Your task to perform on an android device: What is the recent news? Image 0: 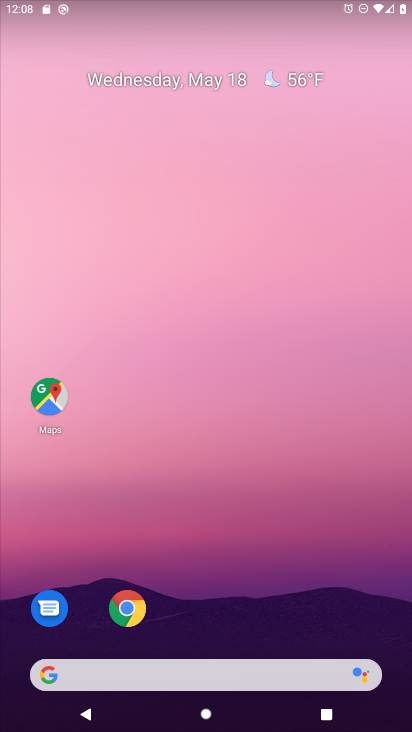
Step 0: drag from (292, 701) to (262, 197)
Your task to perform on an android device: What is the recent news? Image 1: 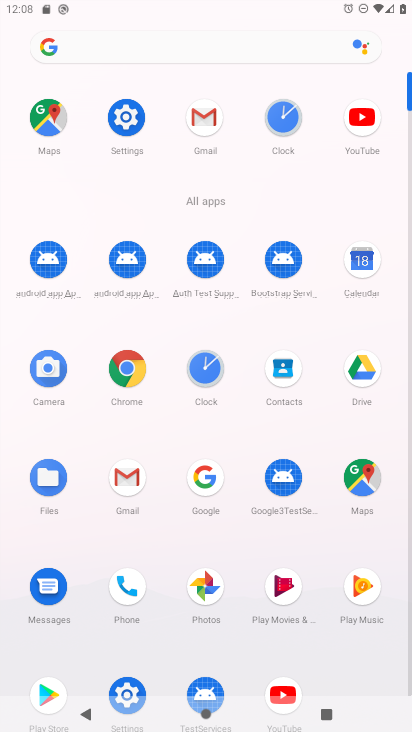
Step 1: click (131, 44)
Your task to perform on an android device: What is the recent news? Image 2: 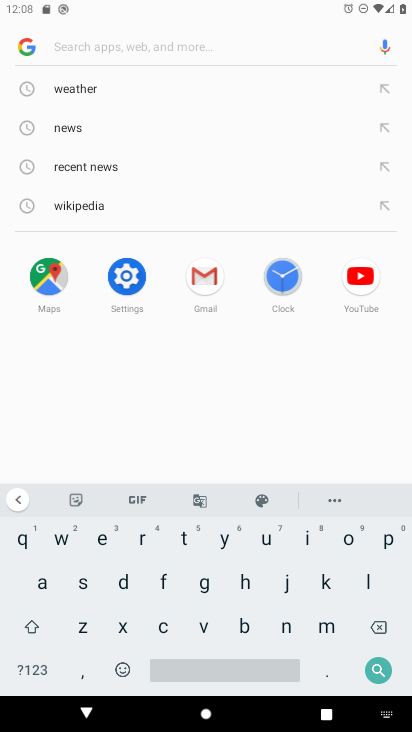
Step 2: click (103, 163)
Your task to perform on an android device: What is the recent news? Image 3: 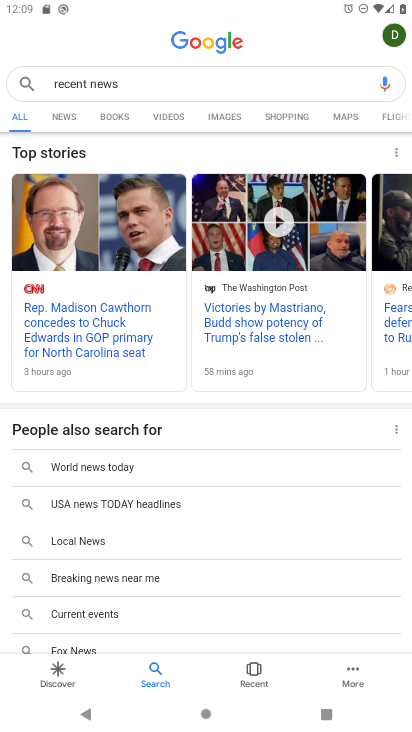
Step 3: task complete